Your task to perform on an android device: Go to Yahoo.com Image 0: 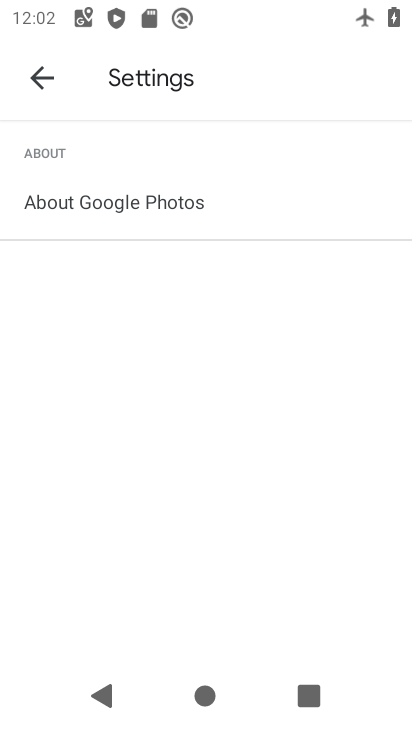
Step 0: press home button
Your task to perform on an android device: Go to Yahoo.com Image 1: 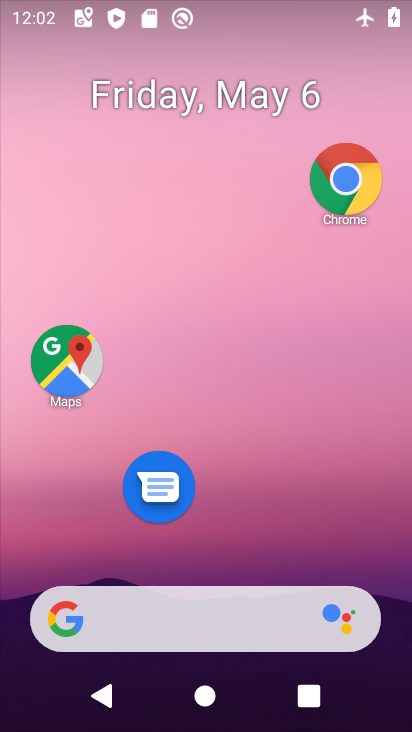
Step 1: click (348, 212)
Your task to perform on an android device: Go to Yahoo.com Image 2: 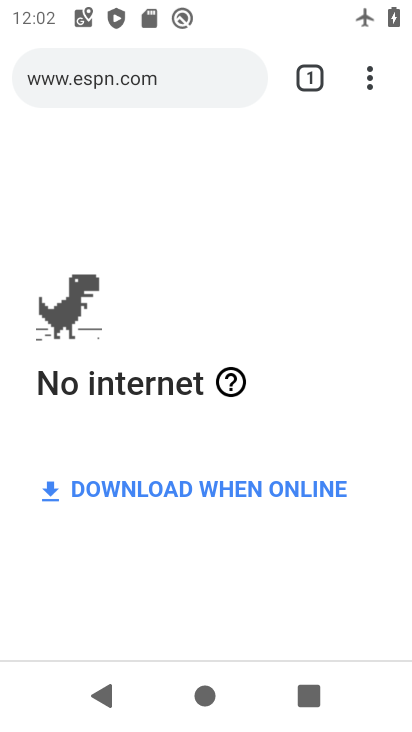
Step 2: click (203, 66)
Your task to perform on an android device: Go to Yahoo.com Image 3: 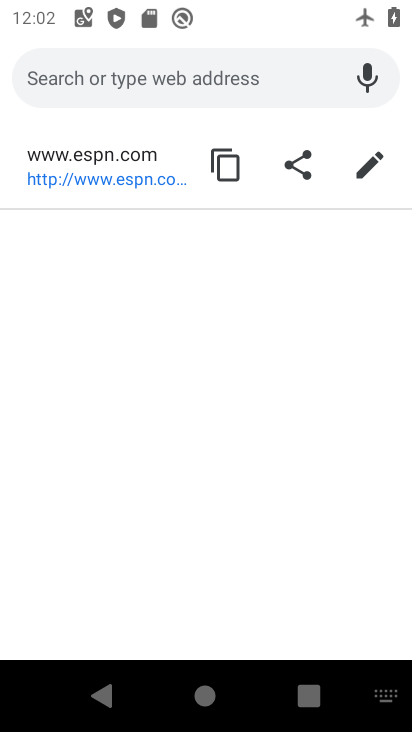
Step 3: type "yahoo.com"
Your task to perform on an android device: Go to Yahoo.com Image 4: 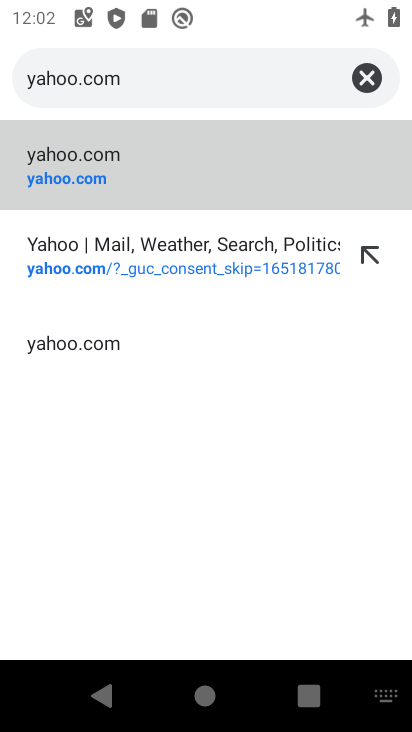
Step 4: click (263, 275)
Your task to perform on an android device: Go to Yahoo.com Image 5: 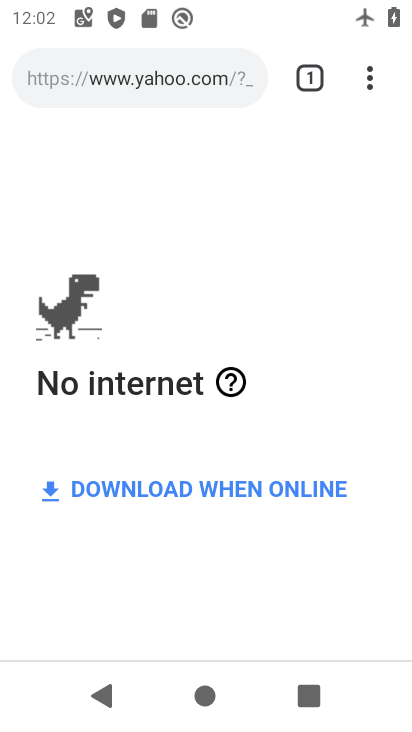
Step 5: task complete